Your task to perform on an android device: Go to Android settings Image 0: 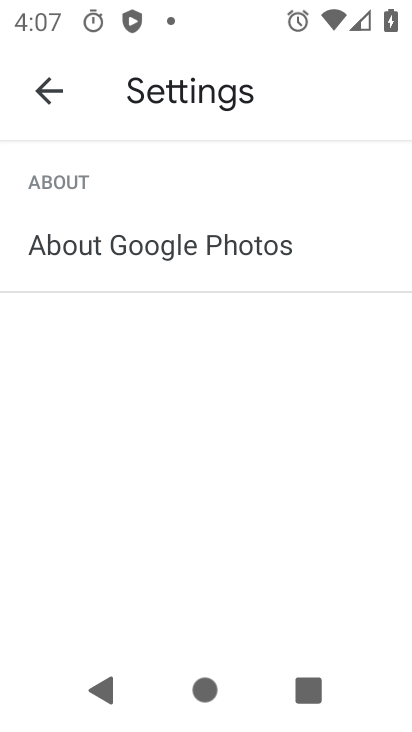
Step 0: press home button
Your task to perform on an android device: Go to Android settings Image 1: 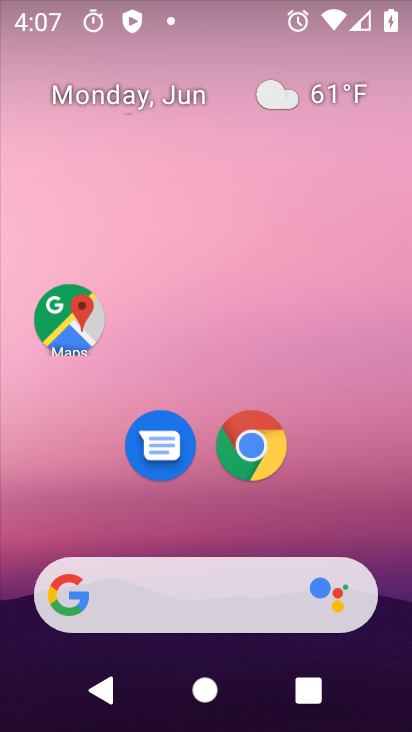
Step 1: drag from (207, 535) to (211, 57)
Your task to perform on an android device: Go to Android settings Image 2: 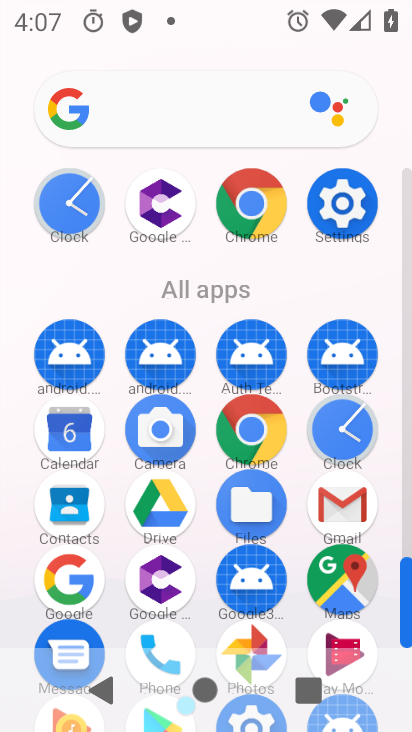
Step 2: click (339, 207)
Your task to perform on an android device: Go to Android settings Image 3: 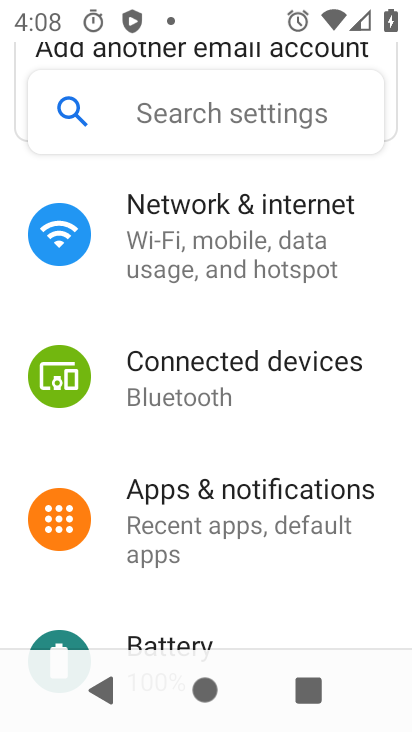
Step 3: drag from (217, 594) to (222, 231)
Your task to perform on an android device: Go to Android settings Image 4: 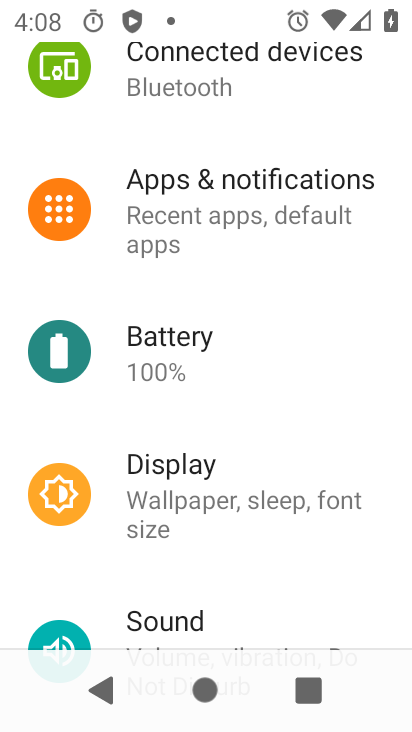
Step 4: drag from (196, 561) to (224, 215)
Your task to perform on an android device: Go to Android settings Image 5: 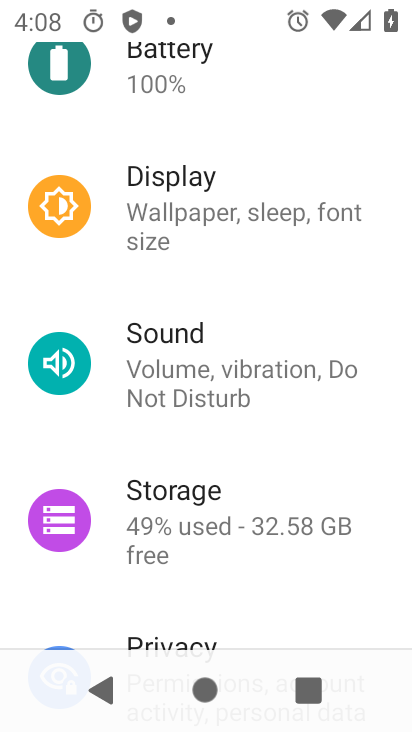
Step 5: drag from (195, 538) to (212, 216)
Your task to perform on an android device: Go to Android settings Image 6: 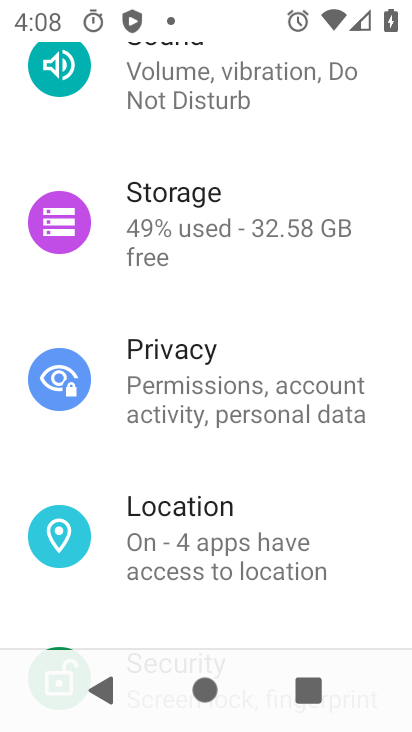
Step 6: drag from (222, 558) to (245, 223)
Your task to perform on an android device: Go to Android settings Image 7: 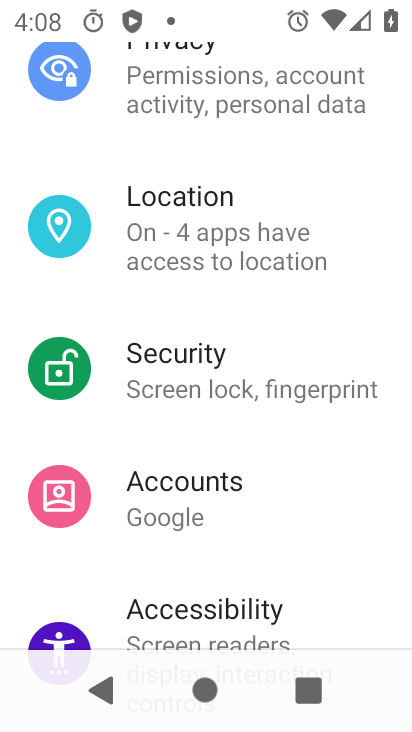
Step 7: drag from (217, 534) to (241, 154)
Your task to perform on an android device: Go to Android settings Image 8: 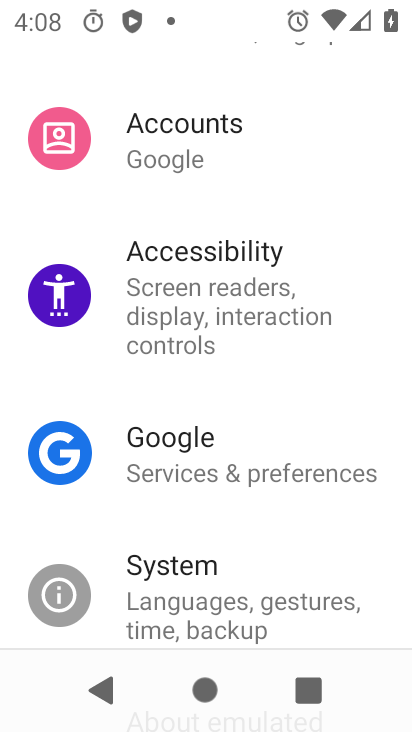
Step 8: drag from (200, 506) to (257, 159)
Your task to perform on an android device: Go to Android settings Image 9: 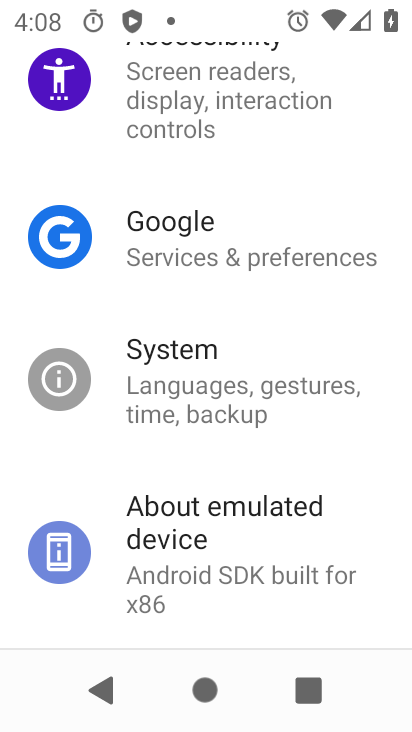
Step 9: drag from (256, 461) to (288, 126)
Your task to perform on an android device: Go to Android settings Image 10: 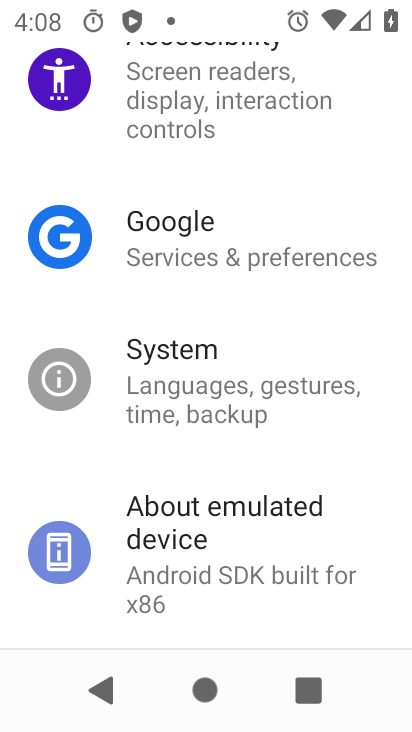
Step 10: click (175, 564)
Your task to perform on an android device: Go to Android settings Image 11: 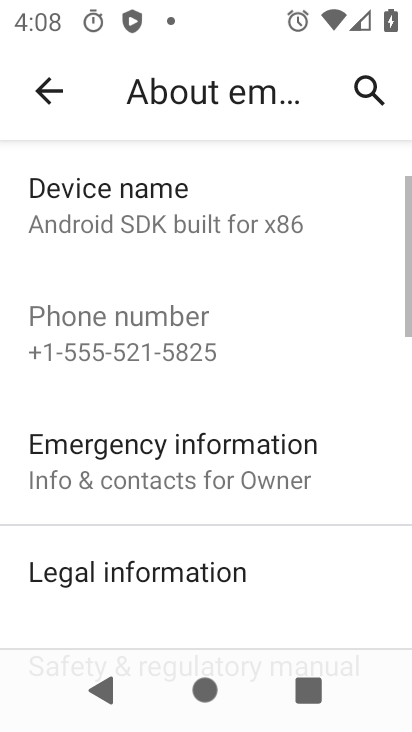
Step 11: drag from (168, 602) to (182, 381)
Your task to perform on an android device: Go to Android settings Image 12: 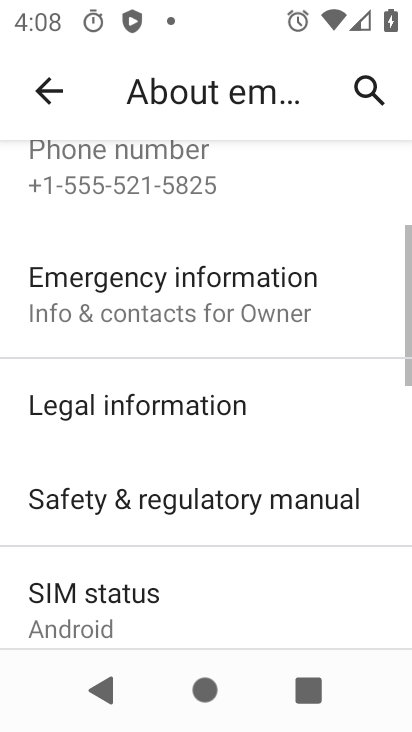
Step 12: drag from (203, 535) to (213, 306)
Your task to perform on an android device: Go to Android settings Image 13: 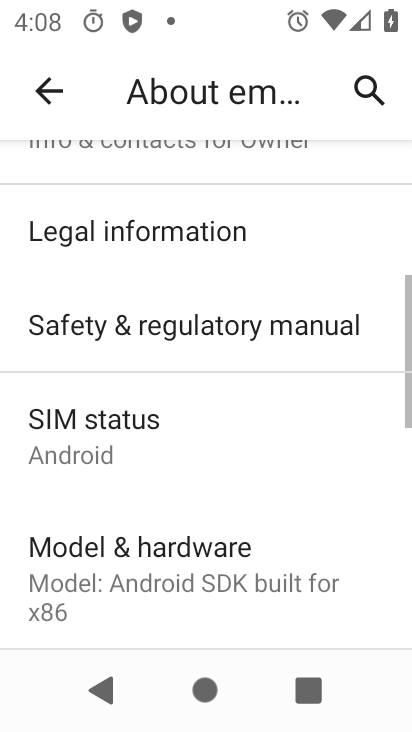
Step 13: drag from (206, 489) to (230, 283)
Your task to perform on an android device: Go to Android settings Image 14: 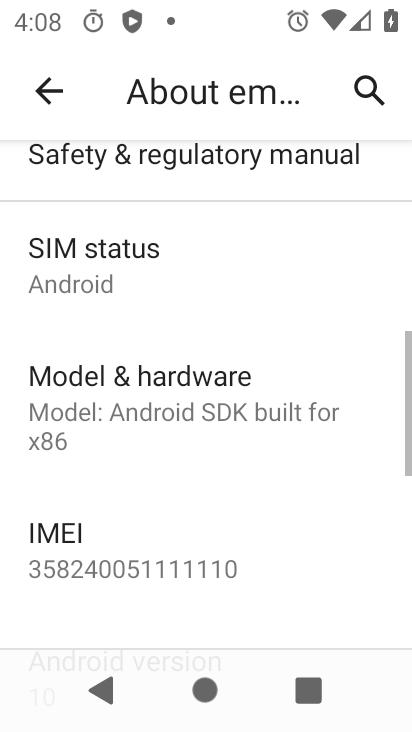
Step 14: drag from (212, 481) to (228, 235)
Your task to perform on an android device: Go to Android settings Image 15: 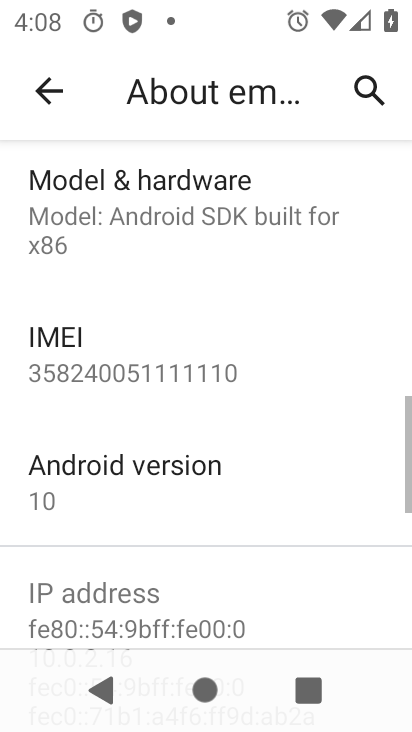
Step 15: click (127, 511)
Your task to perform on an android device: Go to Android settings Image 16: 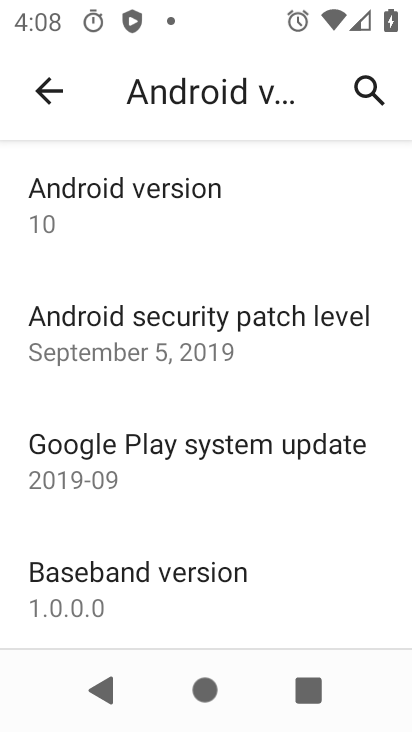
Step 16: task complete